Your task to perform on an android device: Open Google Maps Image 0: 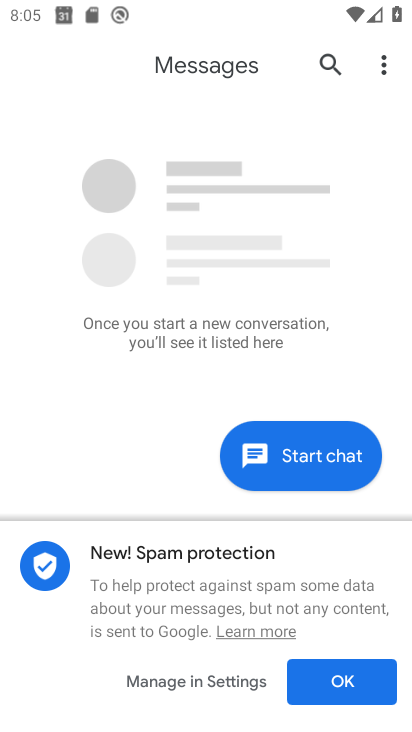
Step 0: press home button
Your task to perform on an android device: Open Google Maps Image 1: 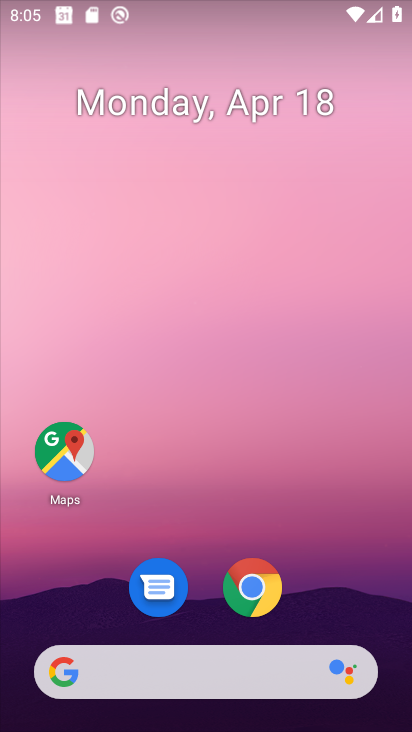
Step 1: click (78, 445)
Your task to perform on an android device: Open Google Maps Image 2: 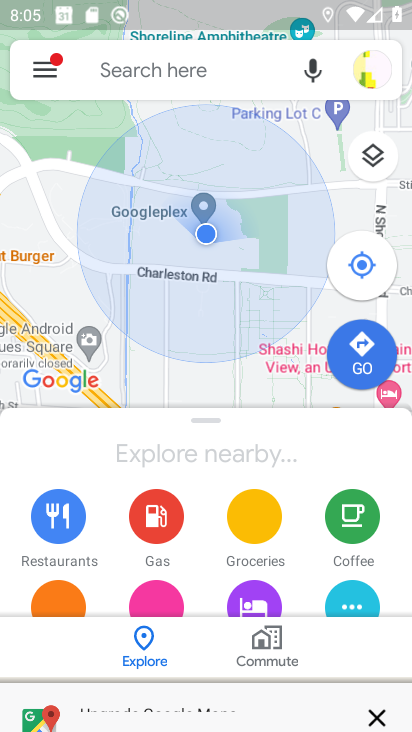
Step 2: task complete